Your task to perform on an android device: turn off data saver in the chrome app Image 0: 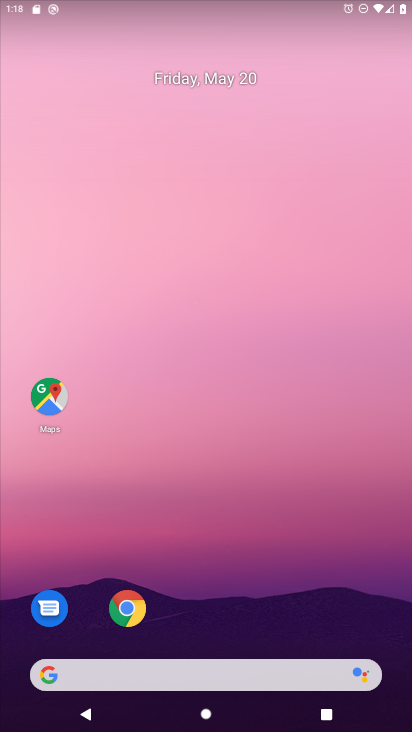
Step 0: press home button
Your task to perform on an android device: turn off data saver in the chrome app Image 1: 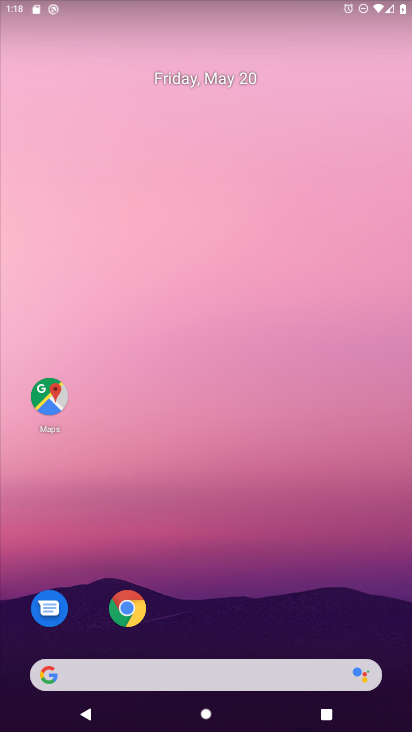
Step 1: click (131, 602)
Your task to perform on an android device: turn off data saver in the chrome app Image 2: 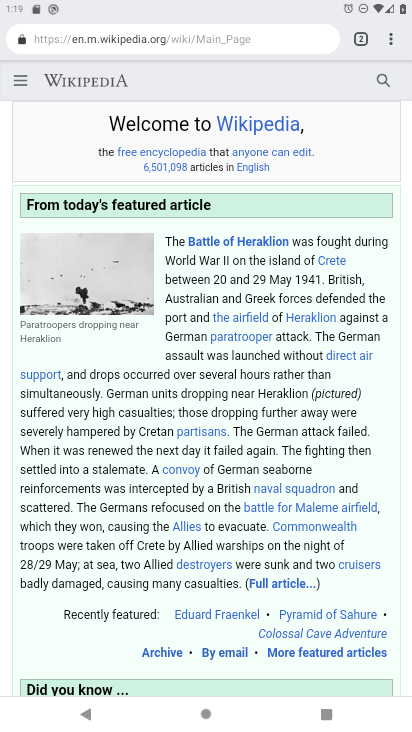
Step 2: drag from (390, 35) to (229, 475)
Your task to perform on an android device: turn off data saver in the chrome app Image 3: 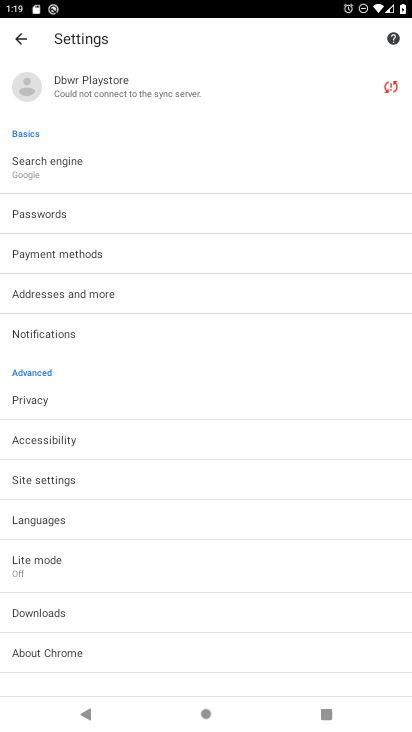
Step 3: click (61, 579)
Your task to perform on an android device: turn off data saver in the chrome app Image 4: 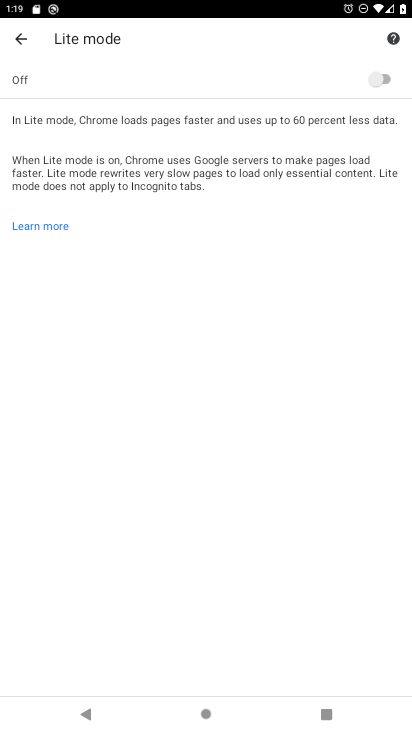
Step 4: task complete